Your task to perform on an android device: allow cookies in the chrome app Image 0: 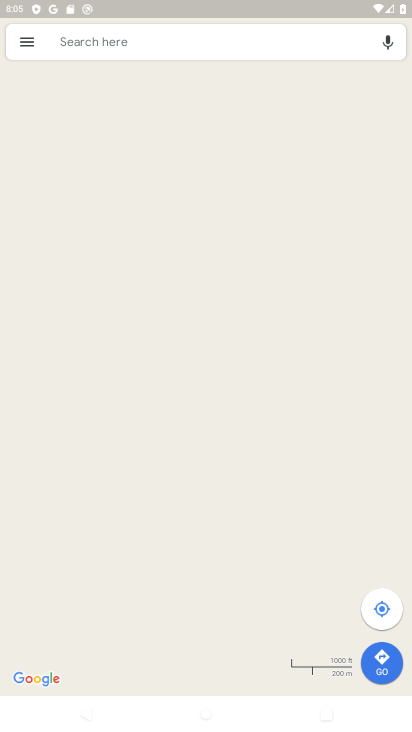
Step 0: press home button
Your task to perform on an android device: allow cookies in the chrome app Image 1: 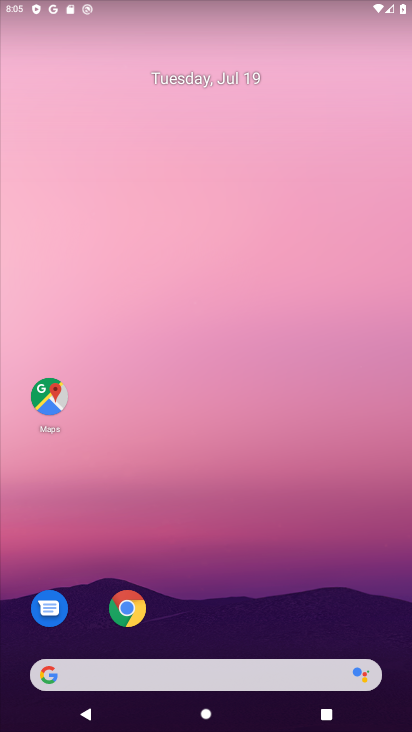
Step 1: click (127, 609)
Your task to perform on an android device: allow cookies in the chrome app Image 2: 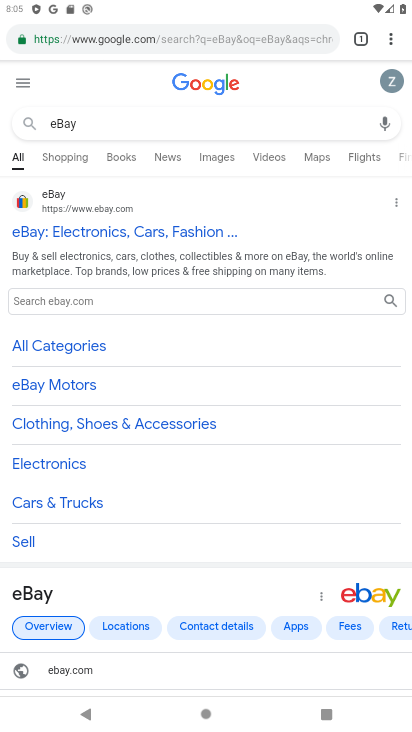
Step 2: click (386, 34)
Your task to perform on an android device: allow cookies in the chrome app Image 3: 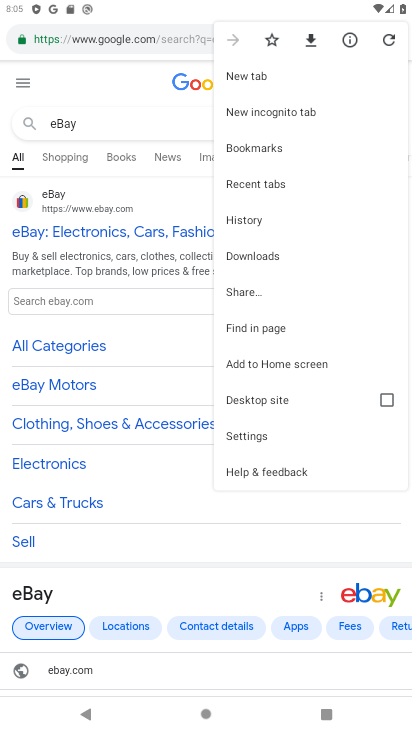
Step 3: click (244, 436)
Your task to perform on an android device: allow cookies in the chrome app Image 4: 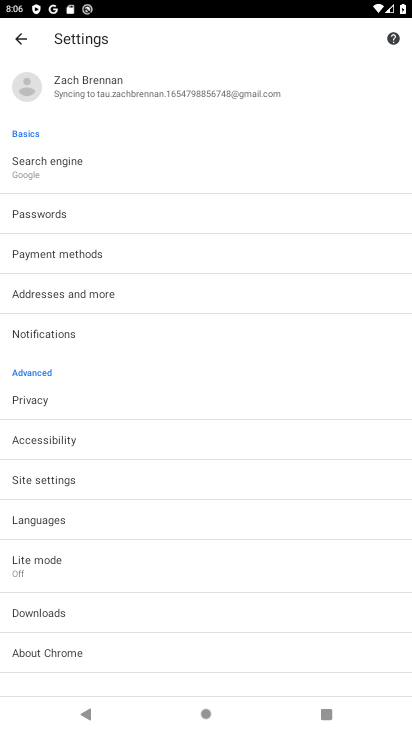
Step 4: click (58, 479)
Your task to perform on an android device: allow cookies in the chrome app Image 5: 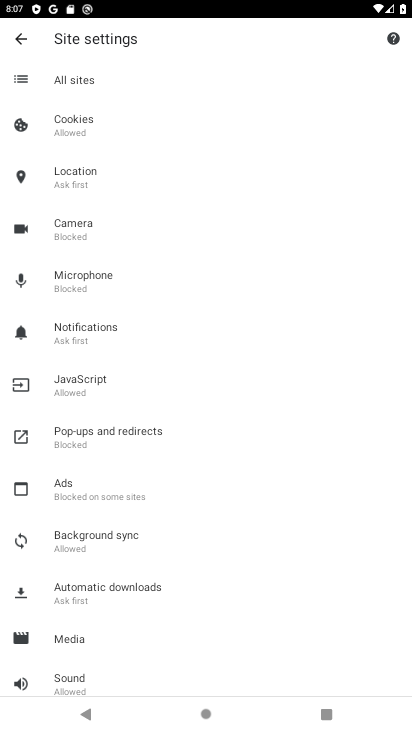
Step 5: click (70, 129)
Your task to perform on an android device: allow cookies in the chrome app Image 6: 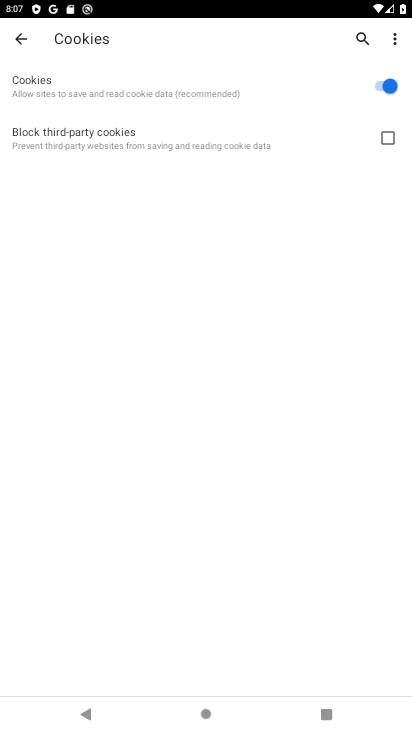
Step 6: task complete